Your task to perform on an android device: allow notifications from all sites in the chrome app Image 0: 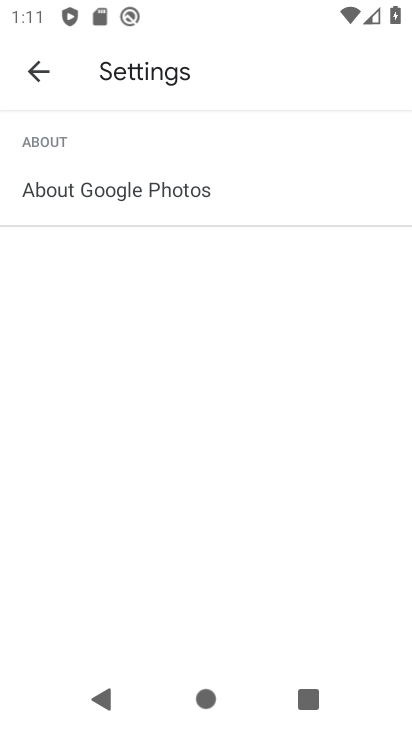
Step 0: press home button
Your task to perform on an android device: allow notifications from all sites in the chrome app Image 1: 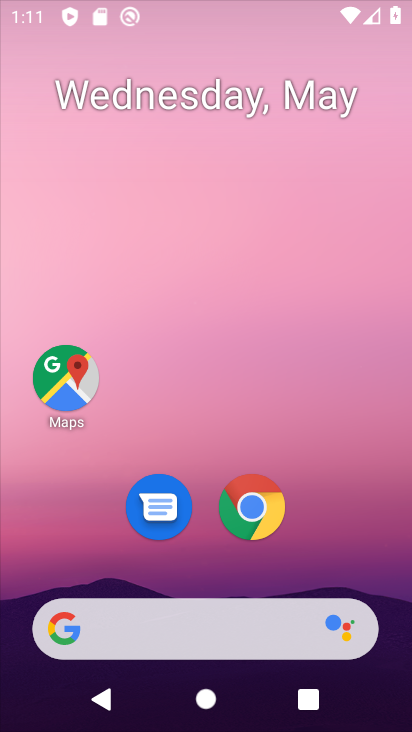
Step 1: drag from (261, 547) to (315, 203)
Your task to perform on an android device: allow notifications from all sites in the chrome app Image 2: 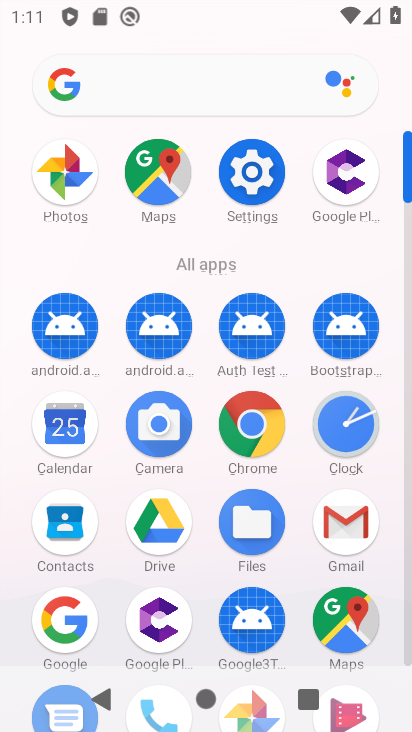
Step 2: click (255, 426)
Your task to perform on an android device: allow notifications from all sites in the chrome app Image 3: 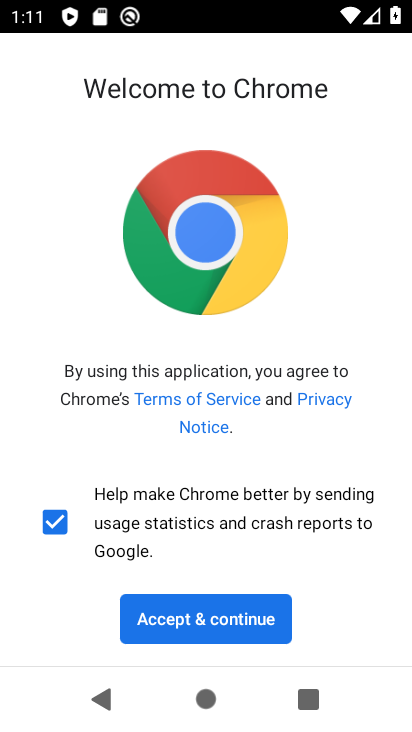
Step 3: click (211, 627)
Your task to perform on an android device: allow notifications from all sites in the chrome app Image 4: 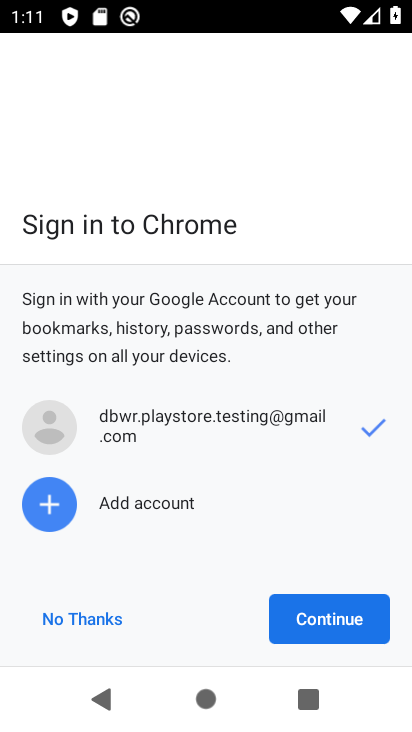
Step 4: click (316, 629)
Your task to perform on an android device: allow notifications from all sites in the chrome app Image 5: 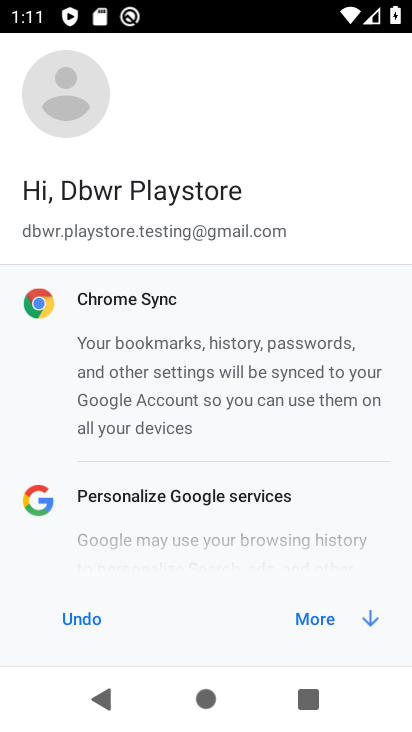
Step 5: click (349, 618)
Your task to perform on an android device: allow notifications from all sites in the chrome app Image 6: 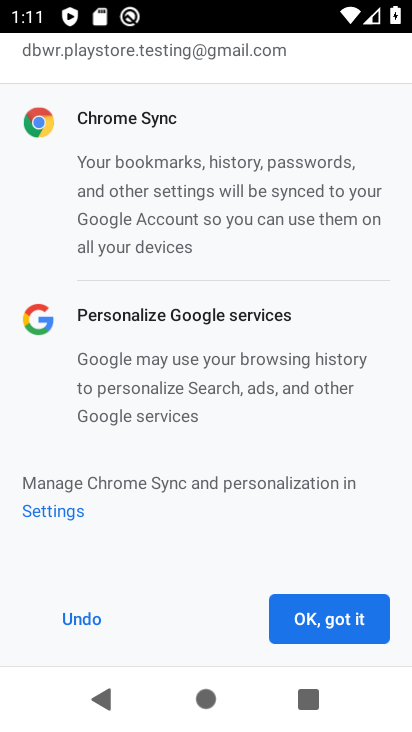
Step 6: click (349, 618)
Your task to perform on an android device: allow notifications from all sites in the chrome app Image 7: 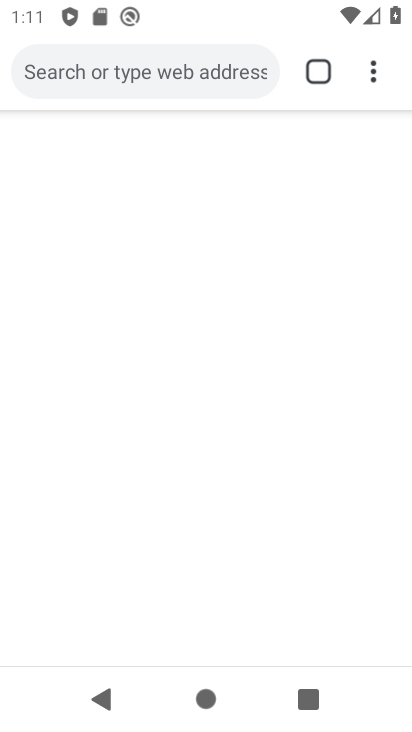
Step 7: click (349, 618)
Your task to perform on an android device: allow notifications from all sites in the chrome app Image 8: 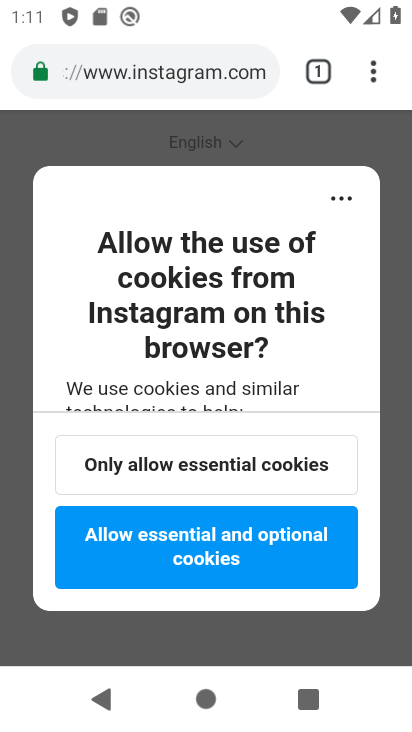
Step 8: click (253, 562)
Your task to perform on an android device: allow notifications from all sites in the chrome app Image 9: 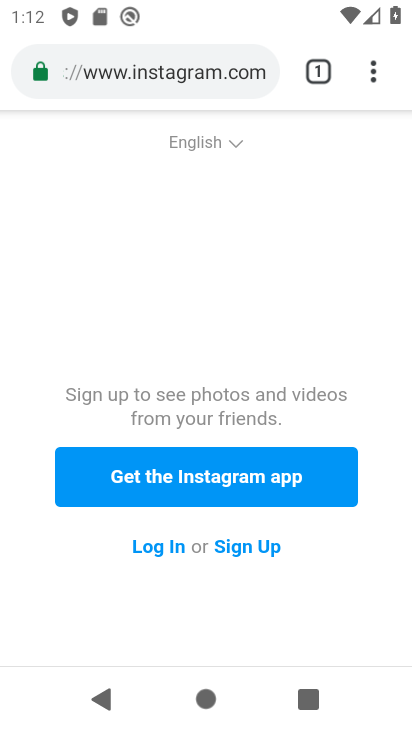
Step 9: click (384, 74)
Your task to perform on an android device: allow notifications from all sites in the chrome app Image 10: 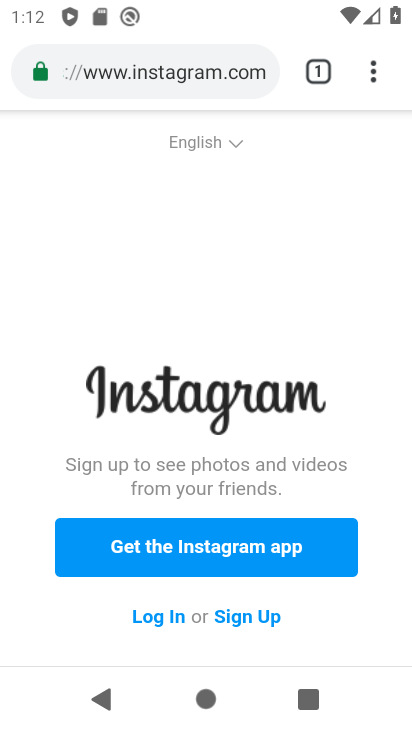
Step 10: click (366, 74)
Your task to perform on an android device: allow notifications from all sites in the chrome app Image 11: 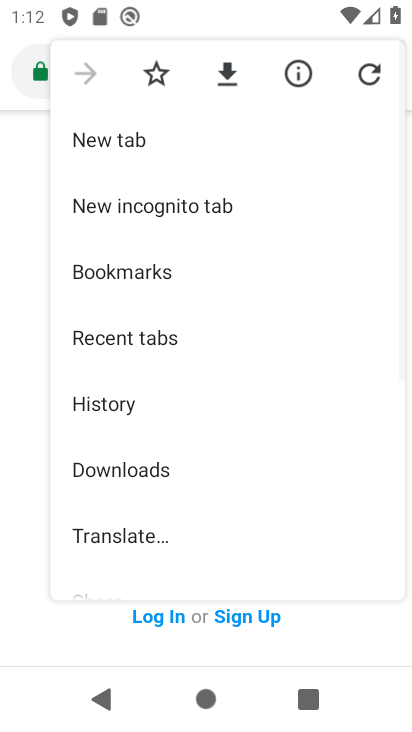
Step 11: drag from (138, 501) to (195, 217)
Your task to perform on an android device: allow notifications from all sites in the chrome app Image 12: 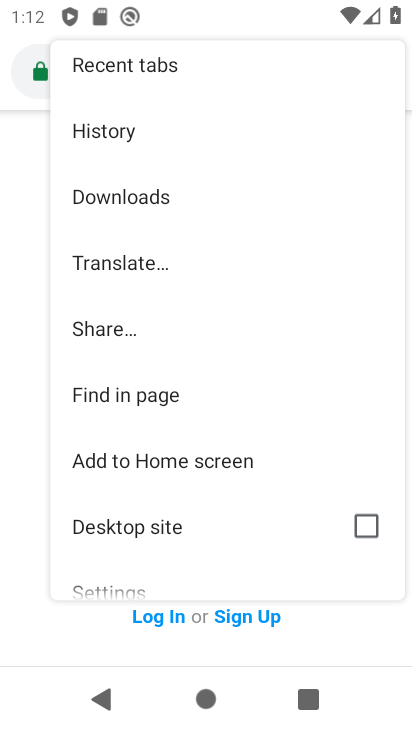
Step 12: drag from (189, 514) to (209, 314)
Your task to perform on an android device: allow notifications from all sites in the chrome app Image 13: 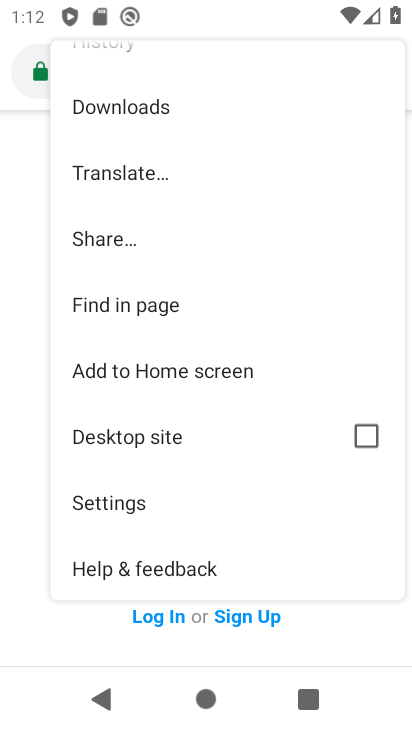
Step 13: click (193, 514)
Your task to perform on an android device: allow notifications from all sites in the chrome app Image 14: 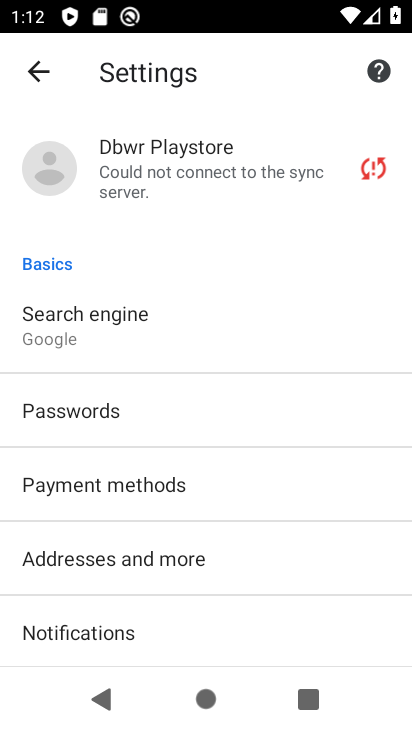
Step 14: drag from (169, 602) to (214, 337)
Your task to perform on an android device: allow notifications from all sites in the chrome app Image 15: 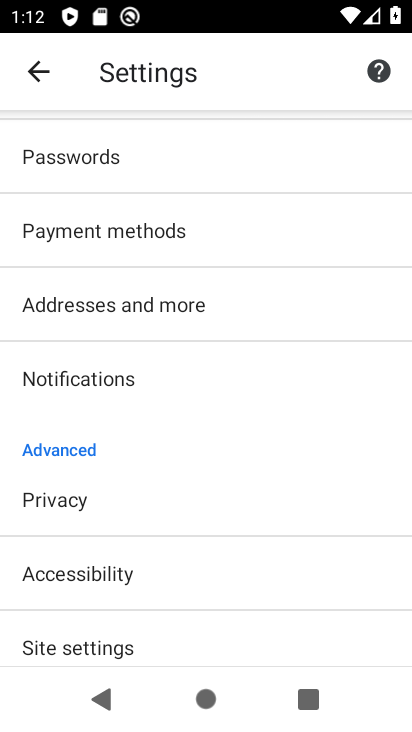
Step 15: click (200, 379)
Your task to perform on an android device: allow notifications from all sites in the chrome app Image 16: 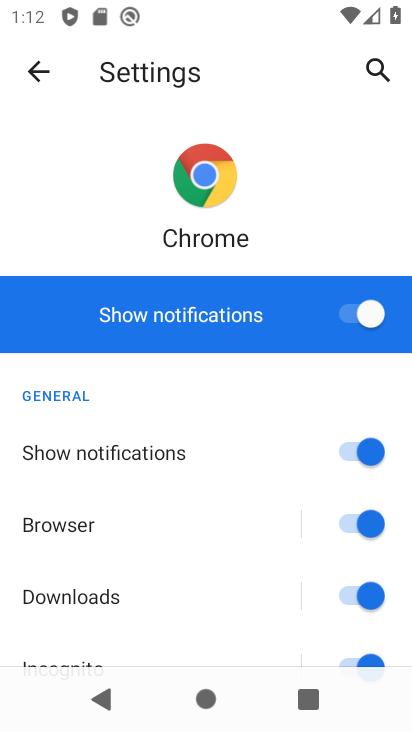
Step 16: task complete